Your task to perform on an android device: Open Maps and search for coffee Image 0: 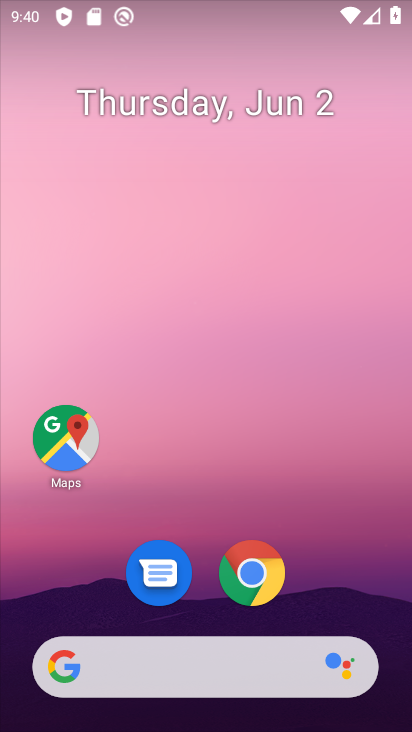
Step 0: click (59, 430)
Your task to perform on an android device: Open Maps and search for coffee Image 1: 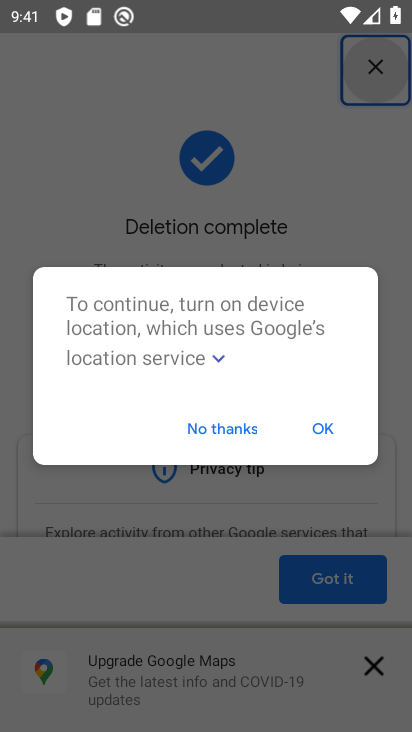
Step 1: press home button
Your task to perform on an android device: Open Maps and search for coffee Image 2: 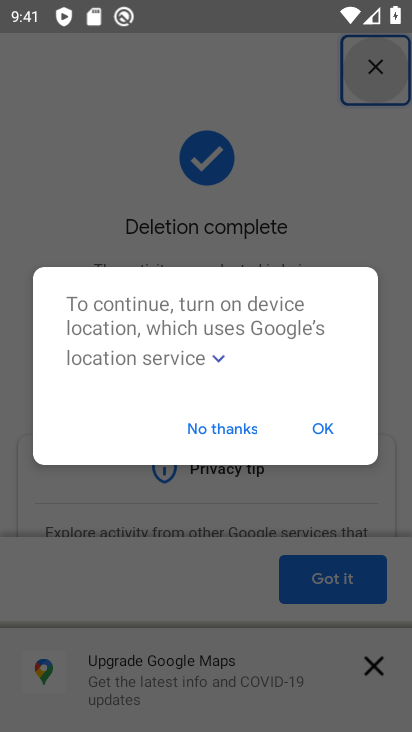
Step 2: press home button
Your task to perform on an android device: Open Maps and search for coffee Image 3: 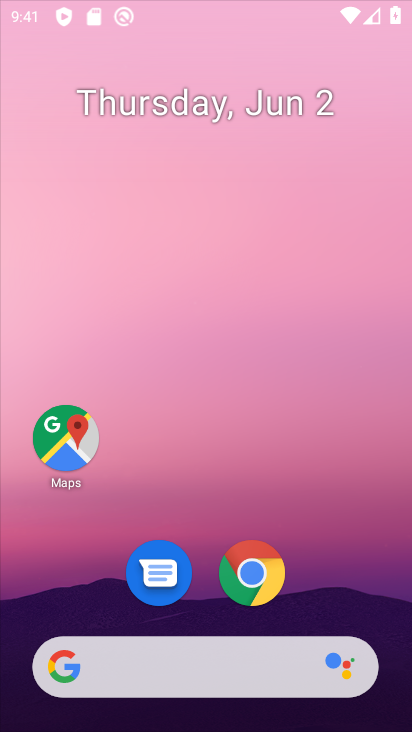
Step 3: press home button
Your task to perform on an android device: Open Maps and search for coffee Image 4: 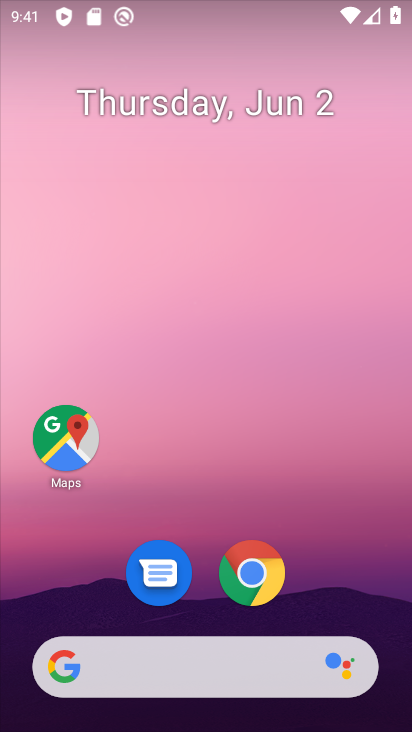
Step 4: press home button
Your task to perform on an android device: Open Maps and search for coffee Image 5: 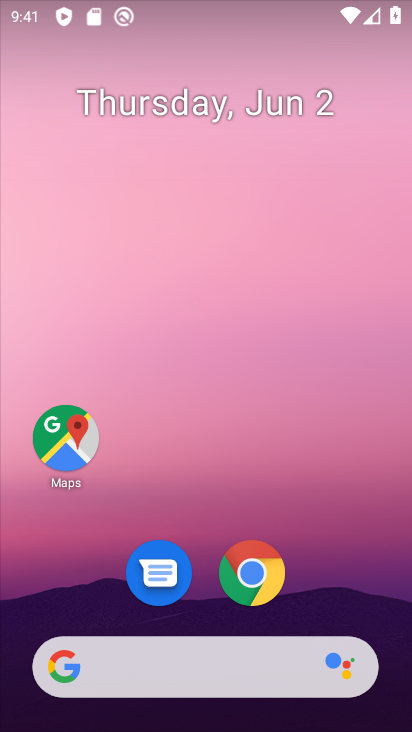
Step 5: click (49, 452)
Your task to perform on an android device: Open Maps and search for coffee Image 6: 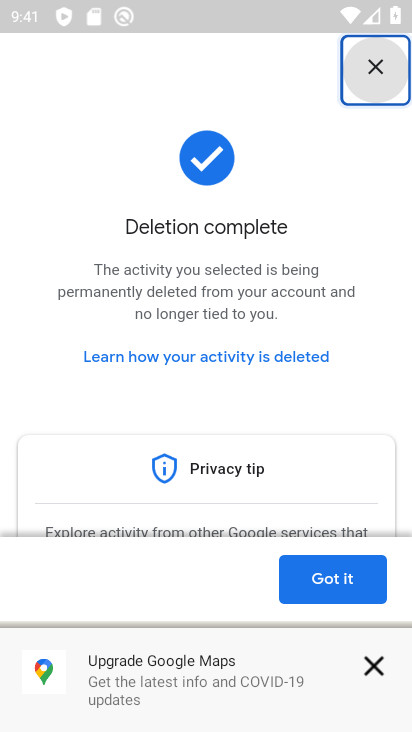
Step 6: click (377, 58)
Your task to perform on an android device: Open Maps and search for coffee Image 7: 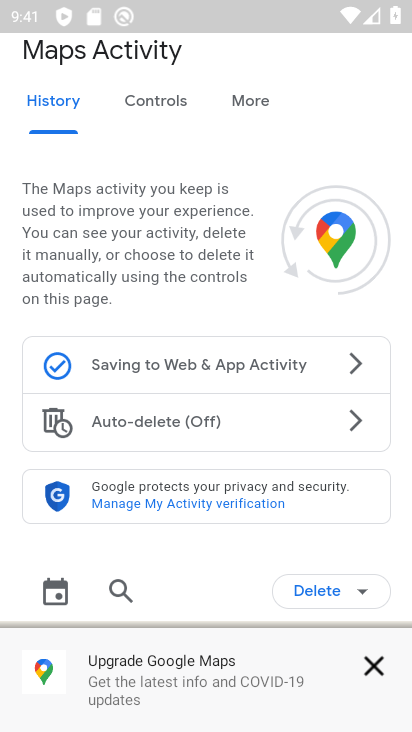
Step 7: press back button
Your task to perform on an android device: Open Maps and search for coffee Image 8: 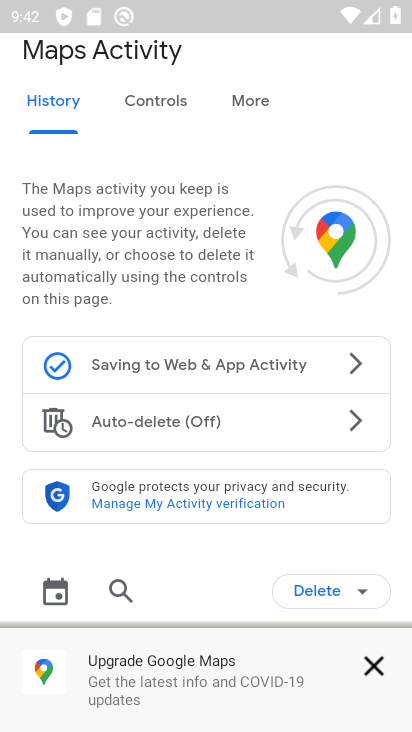
Step 8: press back button
Your task to perform on an android device: Open Maps and search for coffee Image 9: 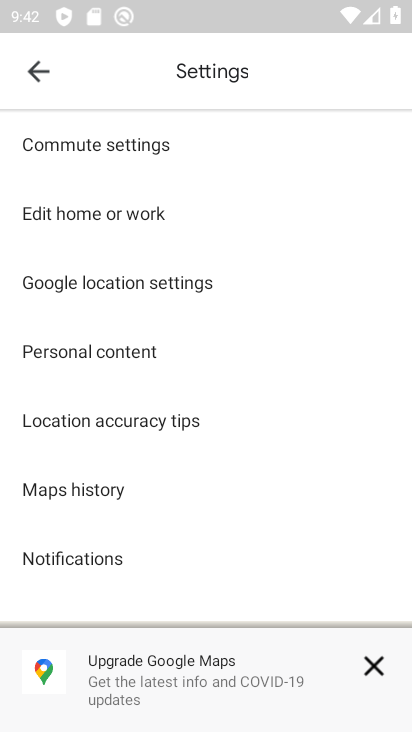
Step 9: press back button
Your task to perform on an android device: Open Maps and search for coffee Image 10: 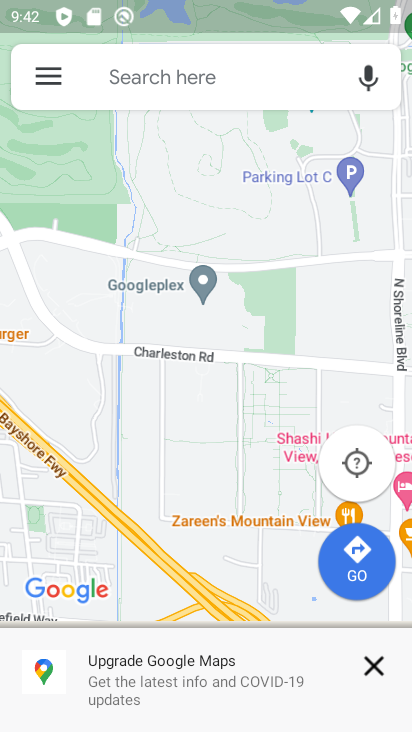
Step 10: click (238, 64)
Your task to perform on an android device: Open Maps and search for coffee Image 11: 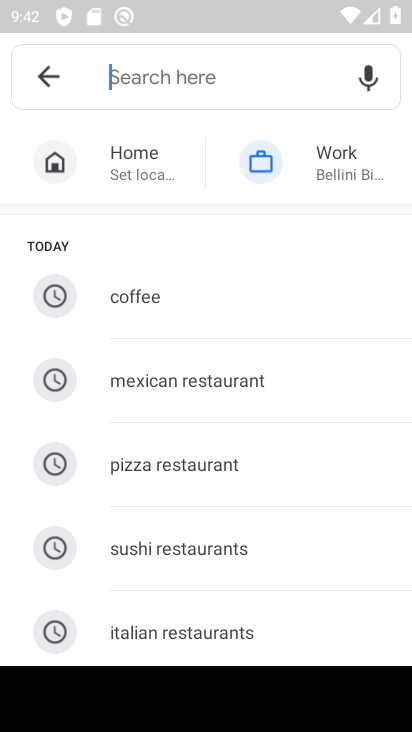
Step 11: click (173, 306)
Your task to perform on an android device: Open Maps and search for coffee Image 12: 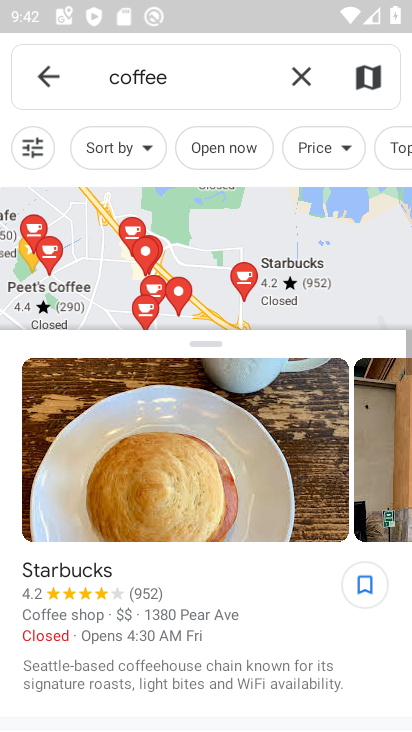
Step 12: task complete